Your task to perform on an android device: turn off sleep mode Image 0: 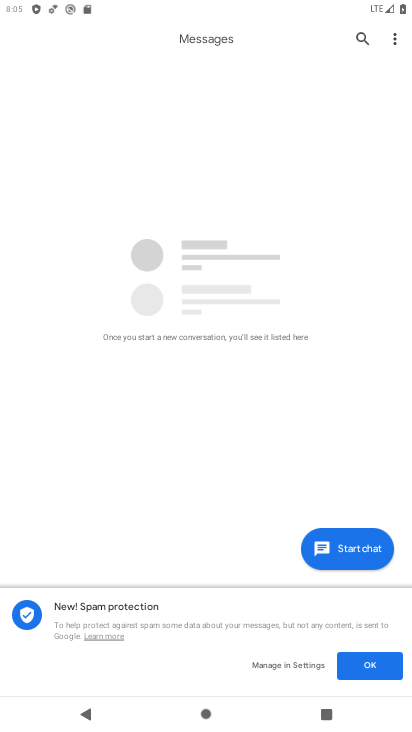
Step 0: press home button
Your task to perform on an android device: turn off sleep mode Image 1: 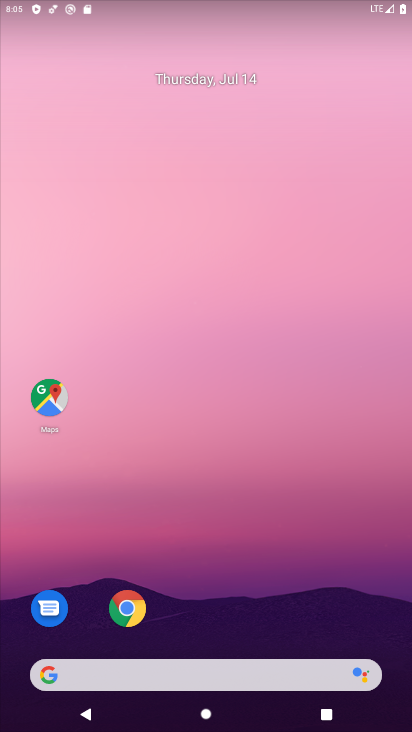
Step 1: click (254, 542)
Your task to perform on an android device: turn off sleep mode Image 2: 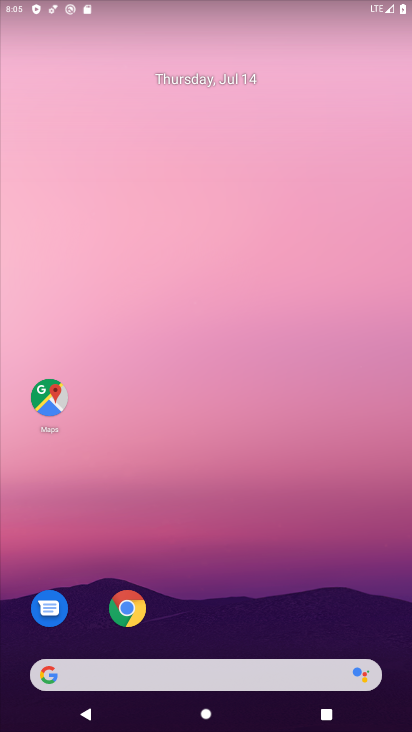
Step 2: drag from (254, 542) to (165, 56)
Your task to perform on an android device: turn off sleep mode Image 3: 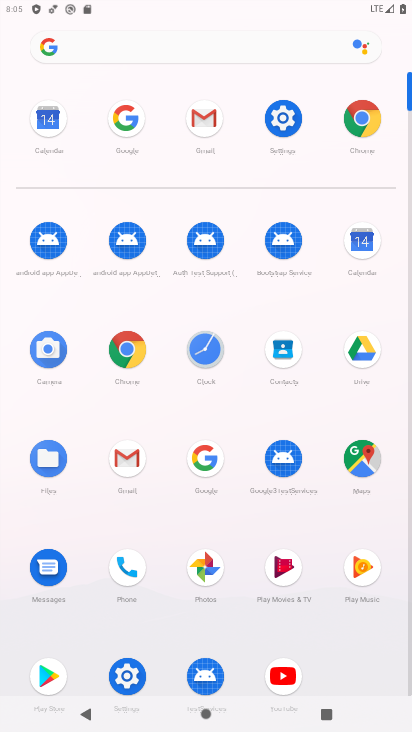
Step 3: click (287, 115)
Your task to perform on an android device: turn off sleep mode Image 4: 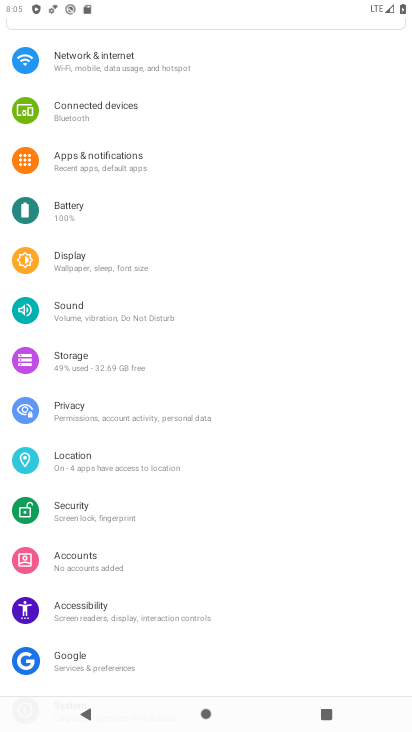
Step 4: click (70, 260)
Your task to perform on an android device: turn off sleep mode Image 5: 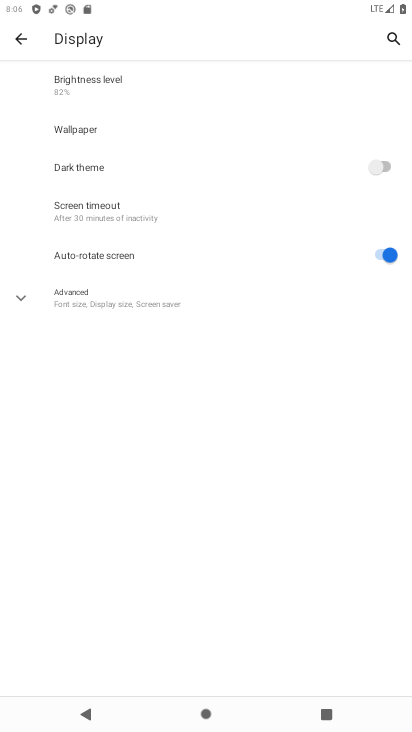
Step 5: task complete